Your task to perform on an android device: Open Google Image 0: 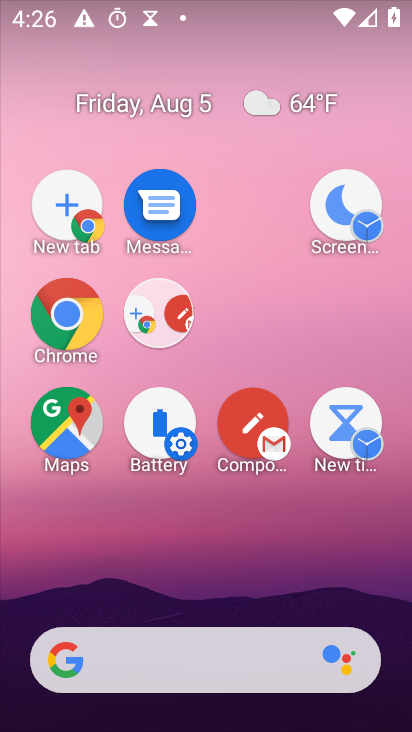
Step 0: drag from (152, 659) to (129, 198)
Your task to perform on an android device: Open Google Image 1: 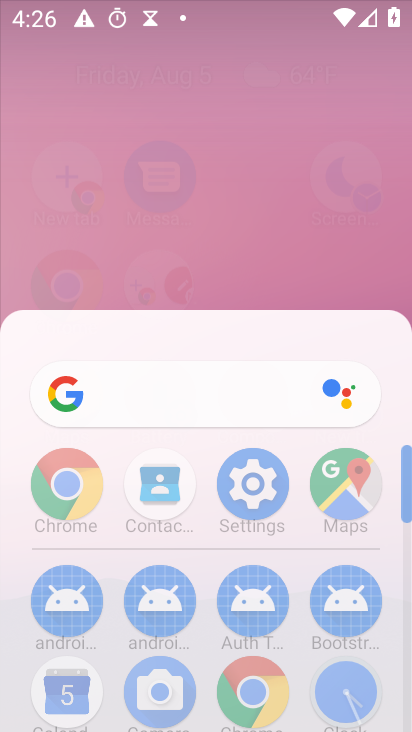
Step 1: drag from (225, 540) to (218, 111)
Your task to perform on an android device: Open Google Image 2: 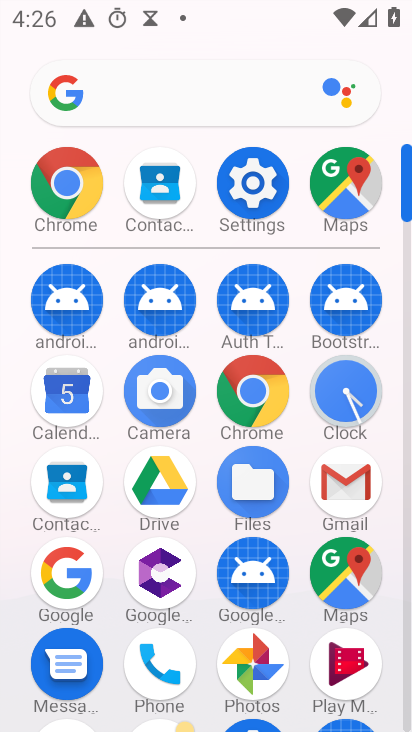
Step 2: drag from (244, 488) to (247, 114)
Your task to perform on an android device: Open Google Image 3: 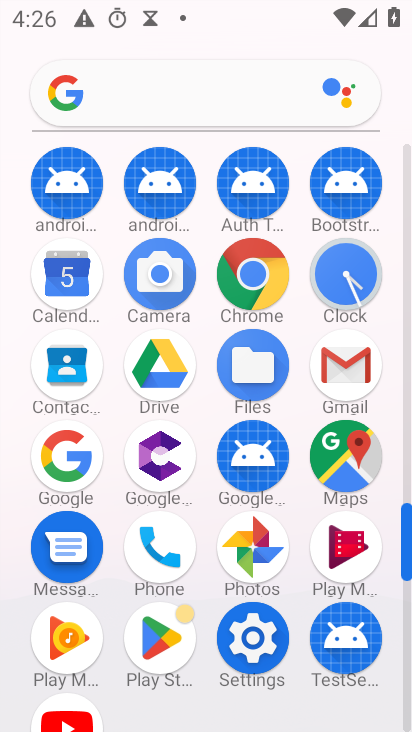
Step 3: click (74, 472)
Your task to perform on an android device: Open Google Image 4: 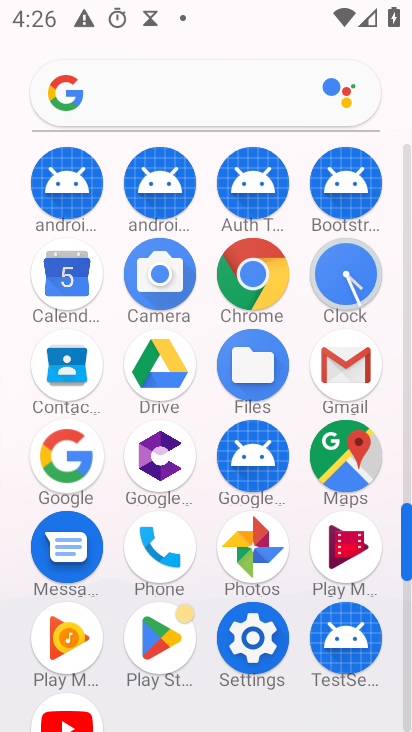
Step 4: click (67, 470)
Your task to perform on an android device: Open Google Image 5: 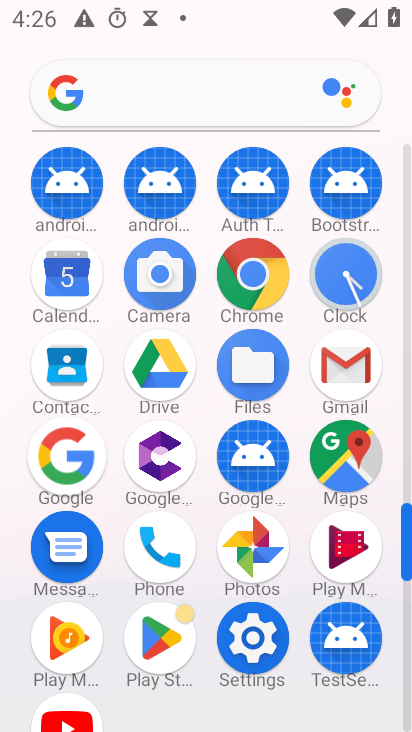
Step 5: click (70, 467)
Your task to perform on an android device: Open Google Image 6: 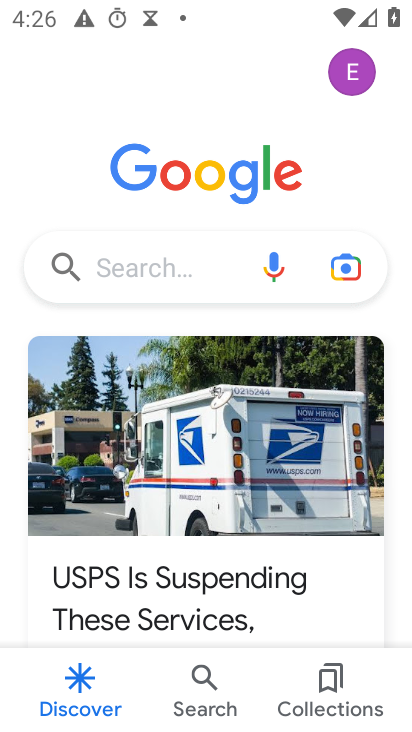
Step 6: drag from (359, 84) to (344, 697)
Your task to perform on an android device: Open Google Image 7: 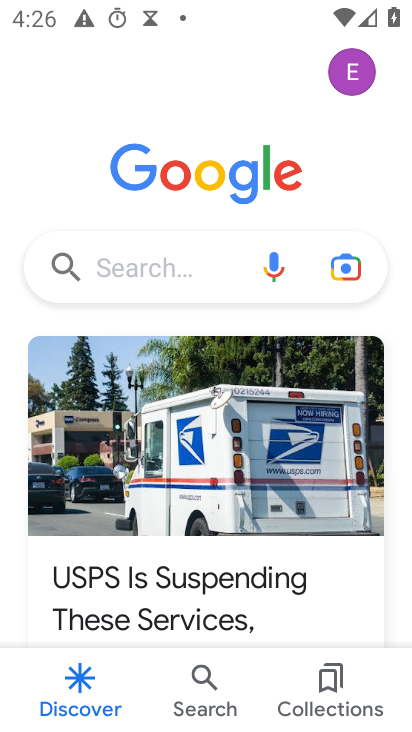
Step 7: drag from (349, 78) to (263, 705)
Your task to perform on an android device: Open Google Image 8: 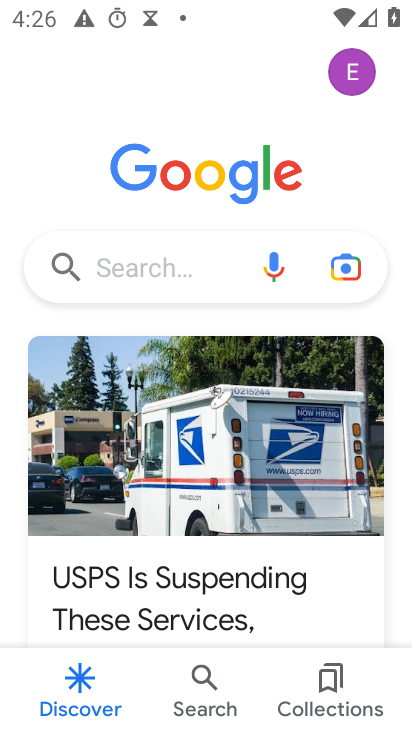
Step 8: drag from (358, 84) to (186, 708)
Your task to perform on an android device: Open Google Image 9: 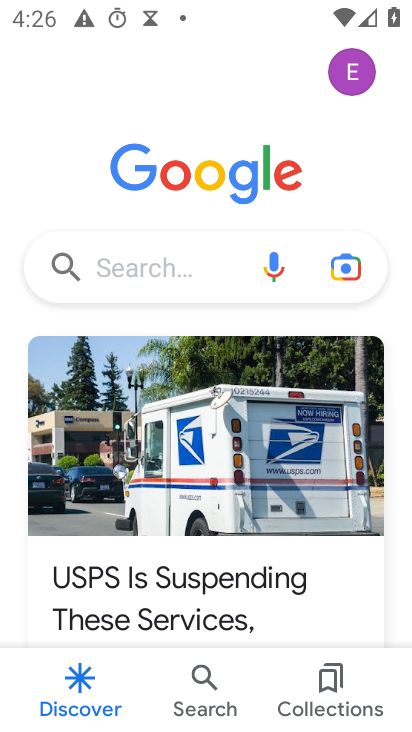
Step 9: click (350, 86)
Your task to perform on an android device: Open Google Image 10: 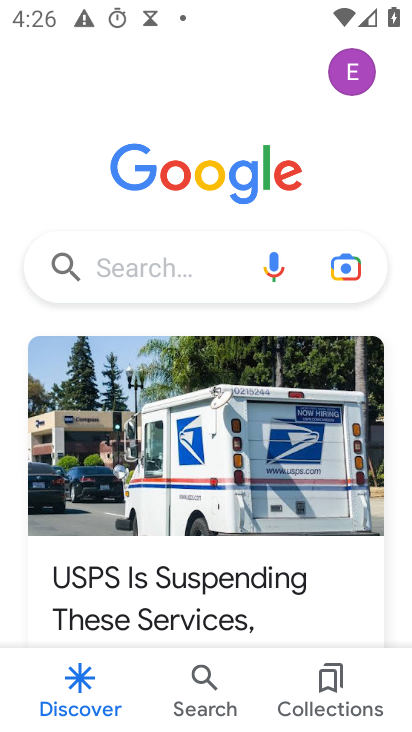
Step 10: click (350, 86)
Your task to perform on an android device: Open Google Image 11: 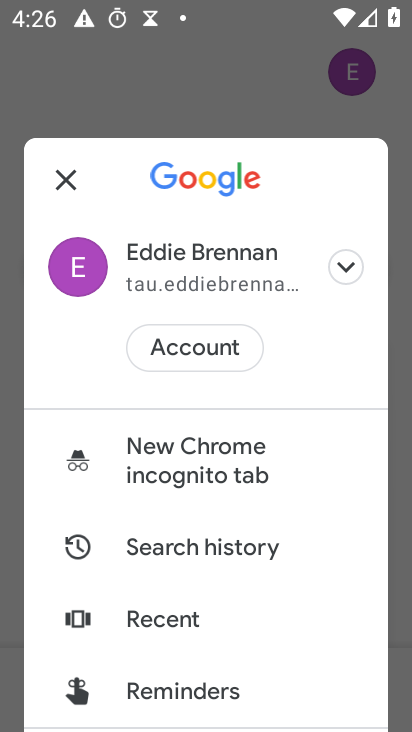
Step 11: drag from (147, 503) to (144, 147)
Your task to perform on an android device: Open Google Image 12: 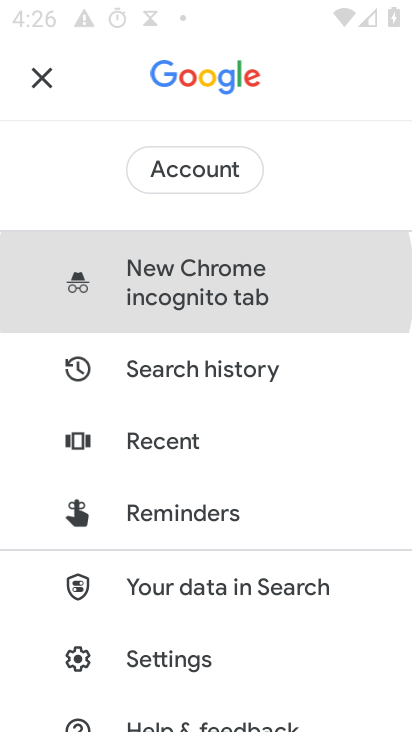
Step 12: drag from (238, 458) to (246, 157)
Your task to perform on an android device: Open Google Image 13: 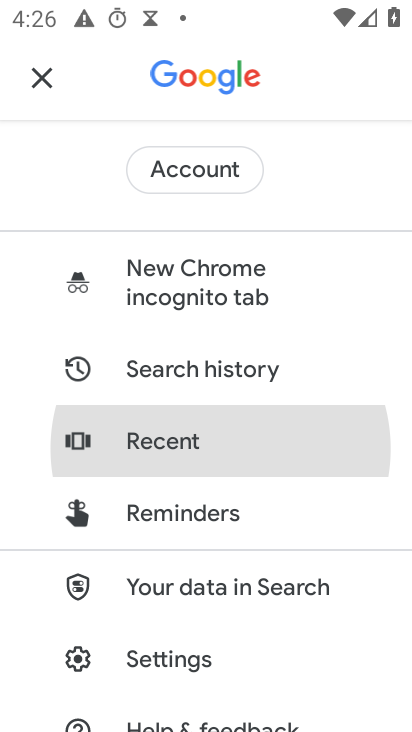
Step 13: drag from (251, 395) to (229, 274)
Your task to perform on an android device: Open Google Image 14: 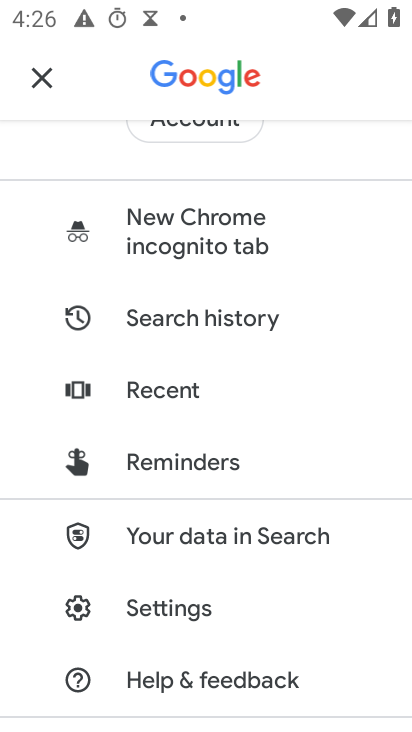
Step 14: click (45, 77)
Your task to perform on an android device: Open Google Image 15: 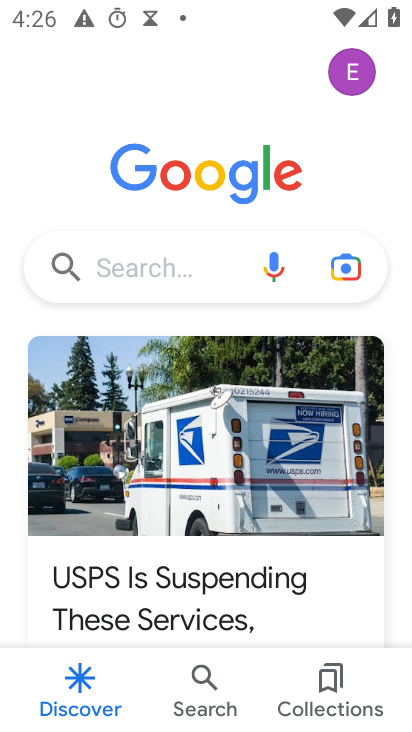
Step 15: task complete